Your task to perform on an android device: open a bookmark in the chrome app Image 0: 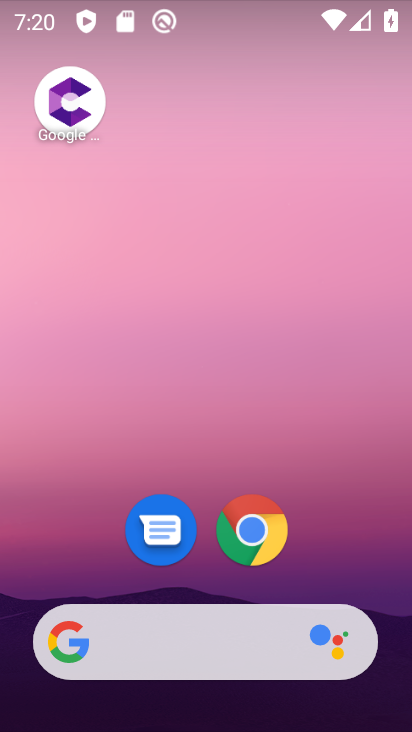
Step 0: click (239, 530)
Your task to perform on an android device: open a bookmark in the chrome app Image 1: 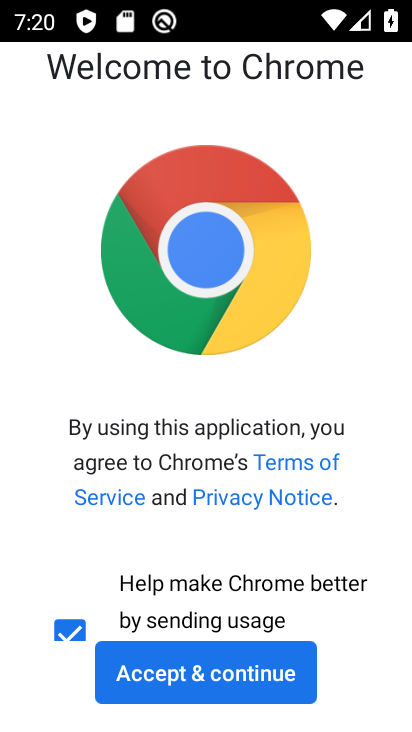
Step 1: click (239, 665)
Your task to perform on an android device: open a bookmark in the chrome app Image 2: 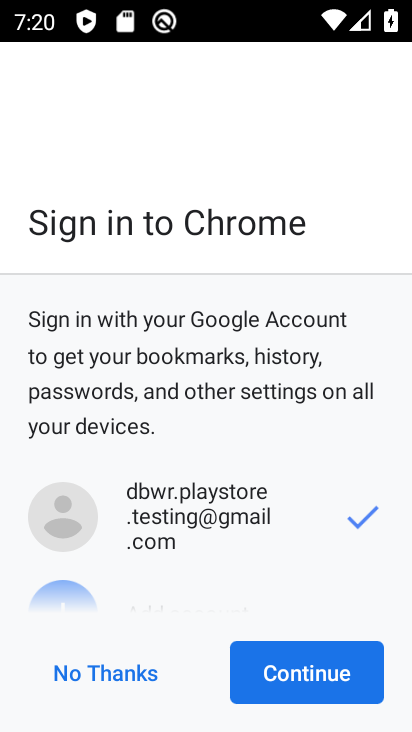
Step 2: click (104, 685)
Your task to perform on an android device: open a bookmark in the chrome app Image 3: 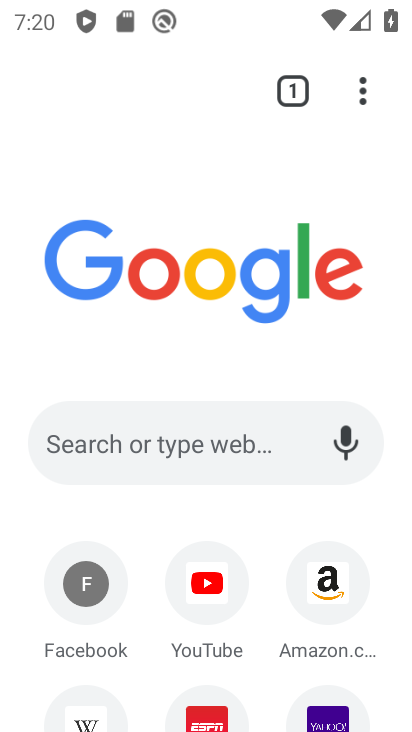
Step 3: click (375, 89)
Your task to perform on an android device: open a bookmark in the chrome app Image 4: 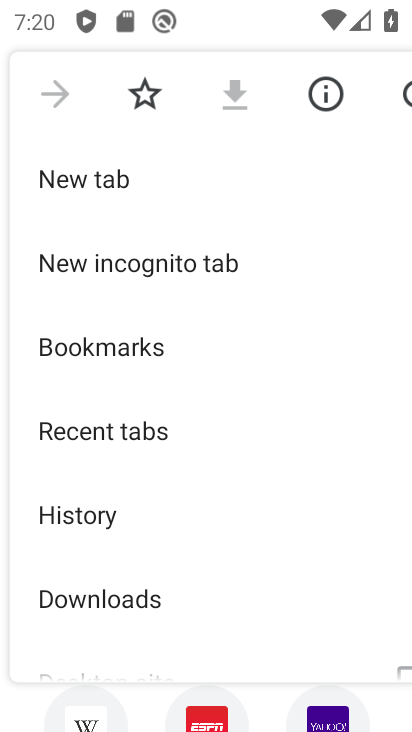
Step 4: click (80, 344)
Your task to perform on an android device: open a bookmark in the chrome app Image 5: 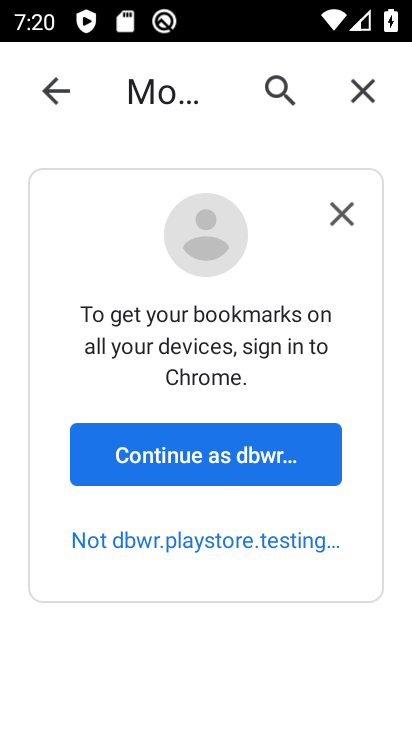
Step 5: click (342, 205)
Your task to perform on an android device: open a bookmark in the chrome app Image 6: 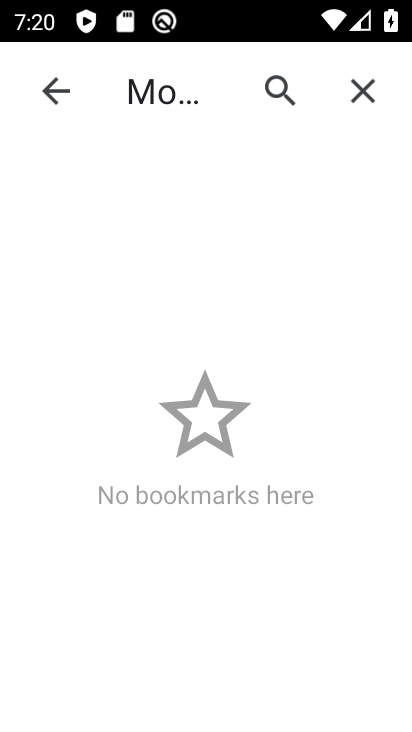
Step 6: task complete